Your task to perform on an android device: search for starred emails in the gmail app Image 0: 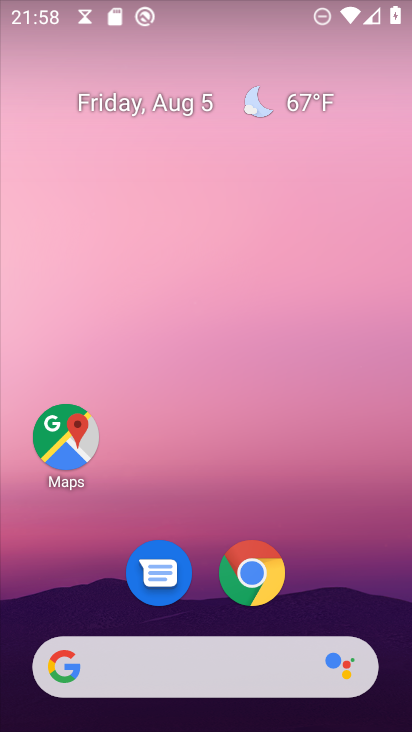
Step 0: drag from (190, 680) to (214, 145)
Your task to perform on an android device: search for starred emails in the gmail app Image 1: 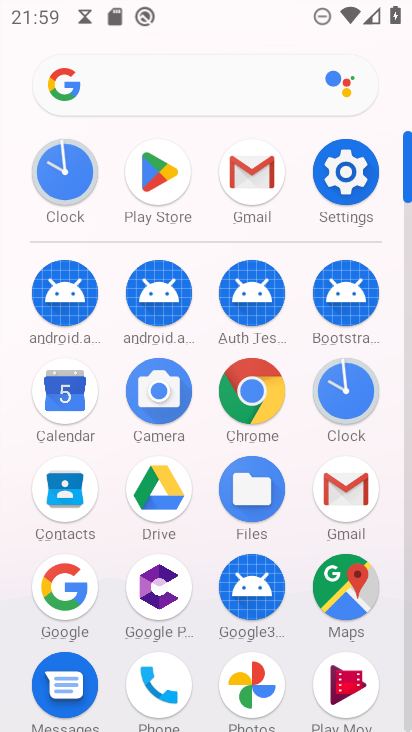
Step 1: click (251, 168)
Your task to perform on an android device: search for starred emails in the gmail app Image 2: 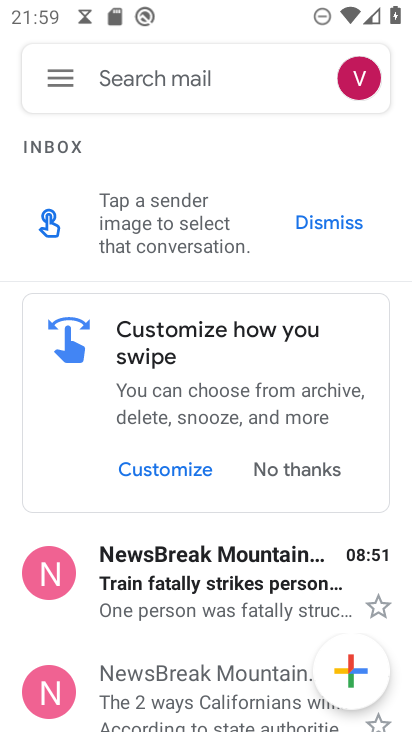
Step 2: click (63, 74)
Your task to perform on an android device: search for starred emails in the gmail app Image 3: 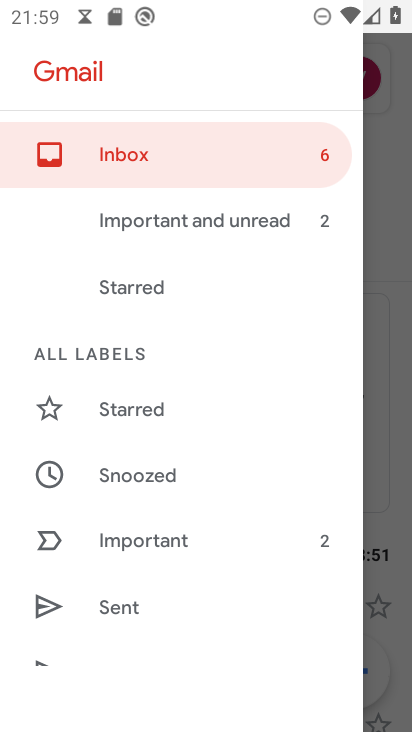
Step 3: click (140, 409)
Your task to perform on an android device: search for starred emails in the gmail app Image 4: 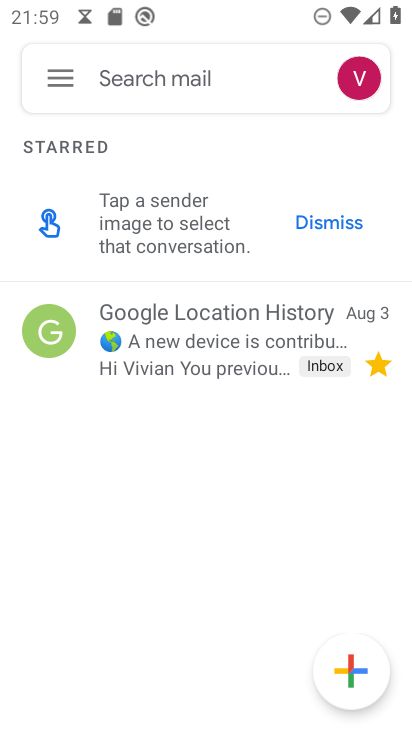
Step 4: task complete